Your task to perform on an android device: move an email to a new category in the gmail app Image 0: 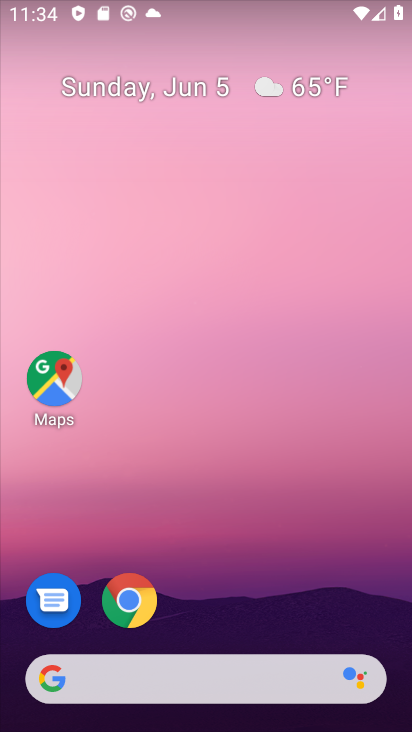
Step 0: click (40, 377)
Your task to perform on an android device: move an email to a new category in the gmail app Image 1: 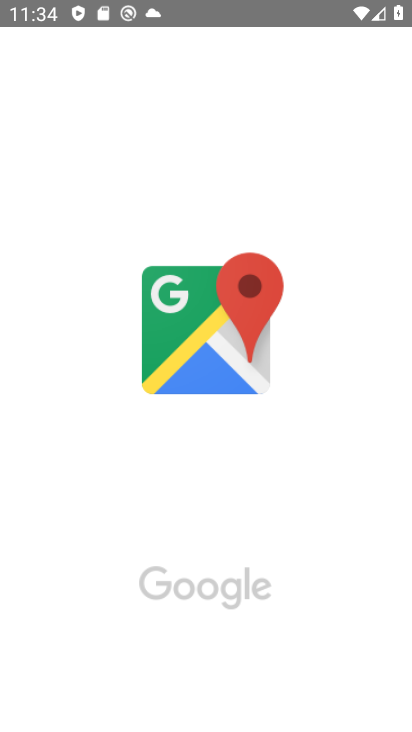
Step 1: press home button
Your task to perform on an android device: move an email to a new category in the gmail app Image 2: 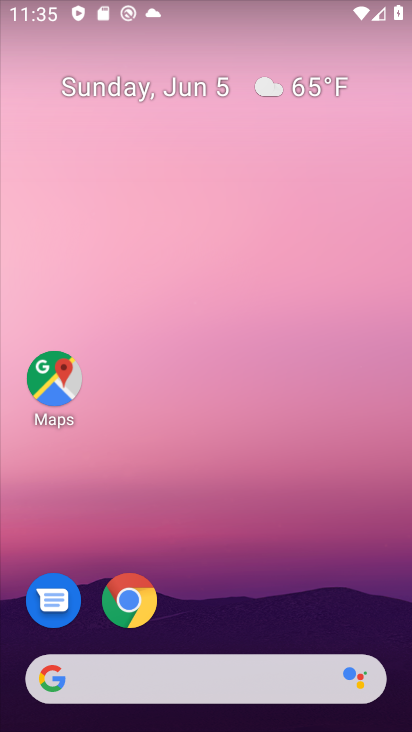
Step 2: drag from (392, 701) to (372, 230)
Your task to perform on an android device: move an email to a new category in the gmail app Image 3: 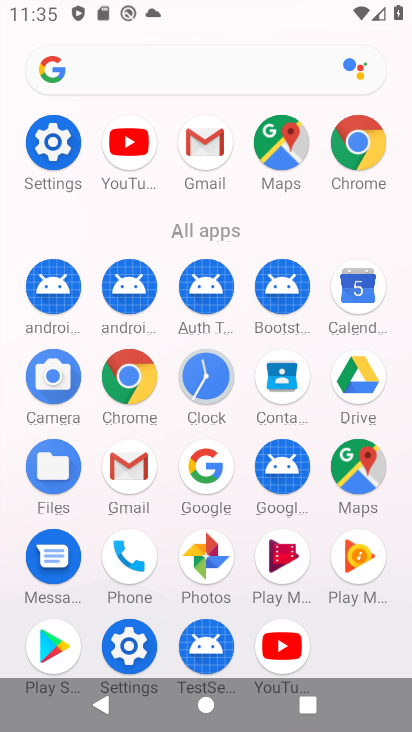
Step 3: click (135, 469)
Your task to perform on an android device: move an email to a new category in the gmail app Image 4: 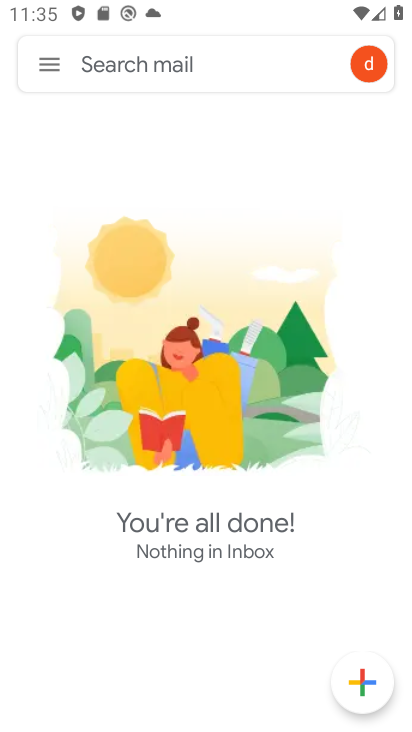
Step 4: task complete